Your task to perform on an android device: allow cookies in the chrome app Image 0: 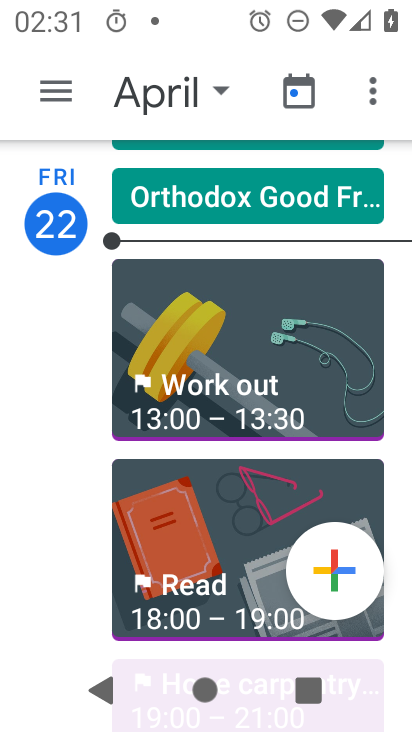
Step 0: press home button
Your task to perform on an android device: allow cookies in the chrome app Image 1: 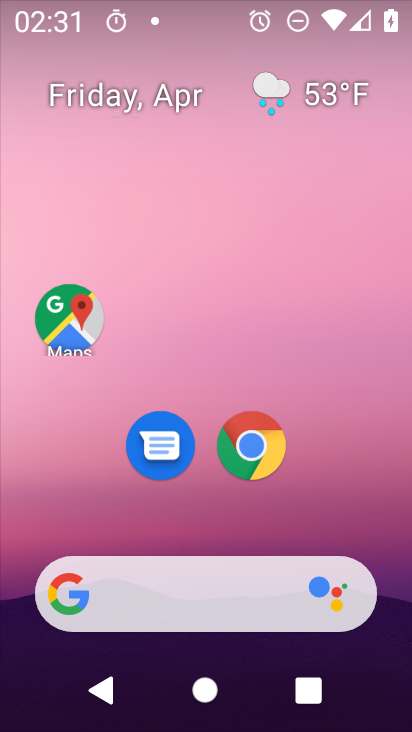
Step 1: drag from (355, 462) to (333, 115)
Your task to perform on an android device: allow cookies in the chrome app Image 2: 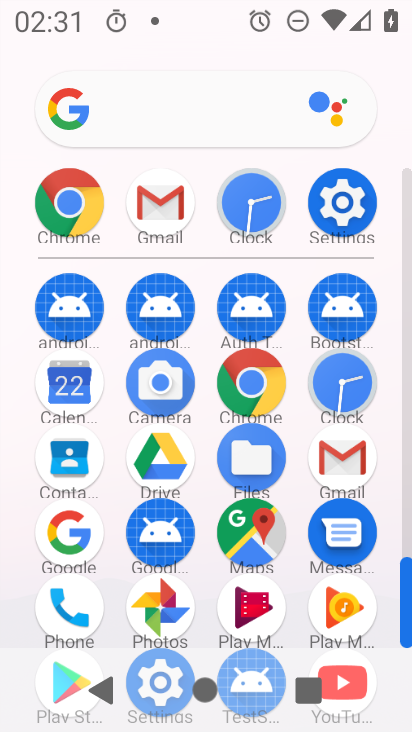
Step 2: click (254, 392)
Your task to perform on an android device: allow cookies in the chrome app Image 3: 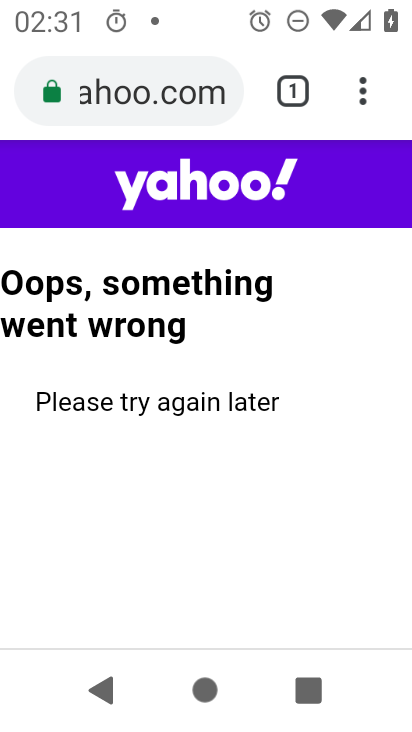
Step 3: click (365, 87)
Your task to perform on an android device: allow cookies in the chrome app Image 4: 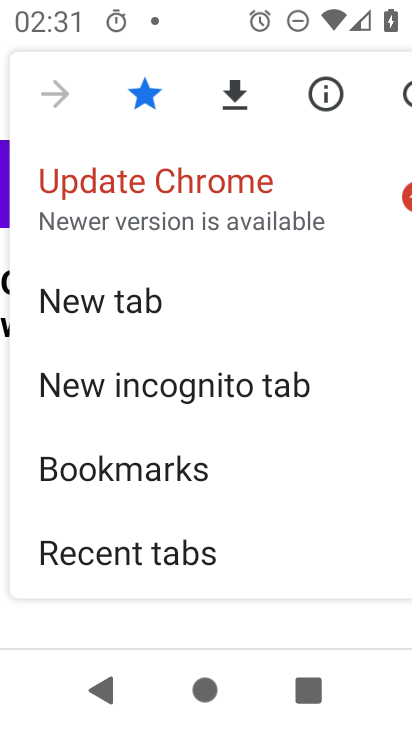
Step 4: drag from (328, 511) to (342, 336)
Your task to perform on an android device: allow cookies in the chrome app Image 5: 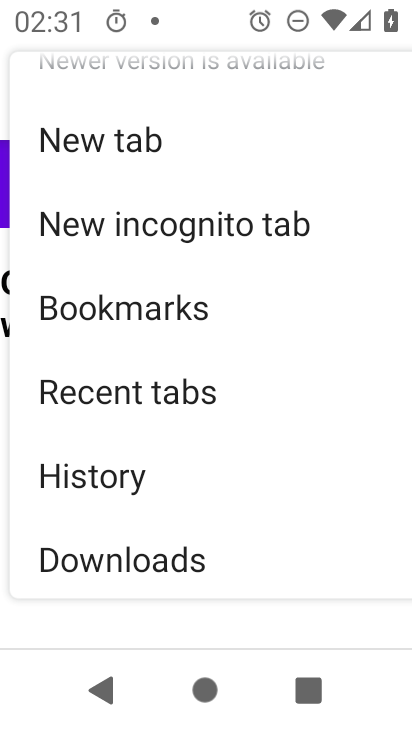
Step 5: drag from (334, 445) to (322, 233)
Your task to perform on an android device: allow cookies in the chrome app Image 6: 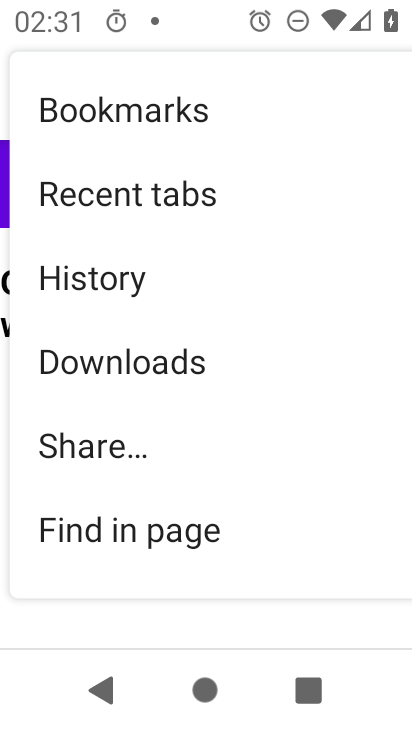
Step 6: drag from (308, 506) to (314, 248)
Your task to perform on an android device: allow cookies in the chrome app Image 7: 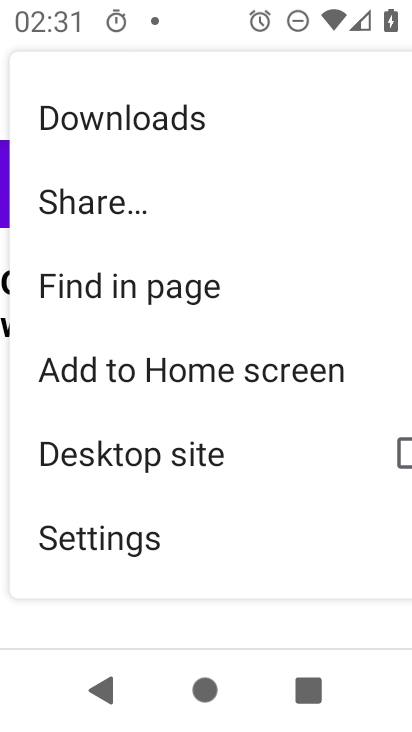
Step 7: drag from (291, 441) to (298, 258)
Your task to perform on an android device: allow cookies in the chrome app Image 8: 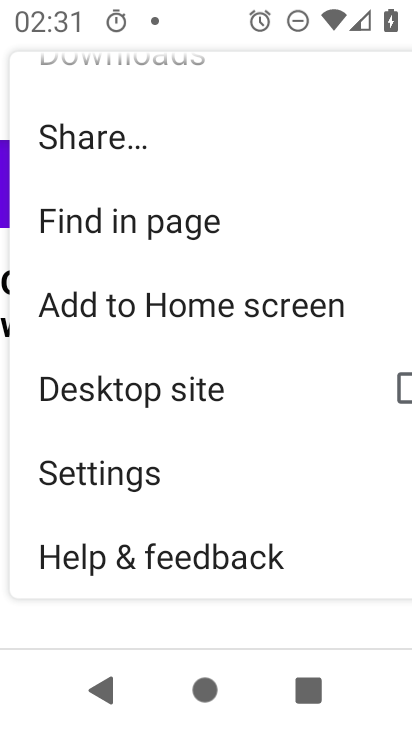
Step 8: click (150, 476)
Your task to perform on an android device: allow cookies in the chrome app Image 9: 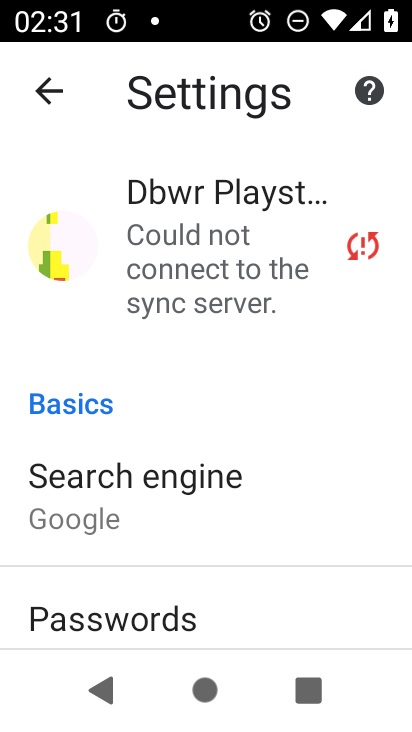
Step 9: drag from (296, 545) to (300, 319)
Your task to perform on an android device: allow cookies in the chrome app Image 10: 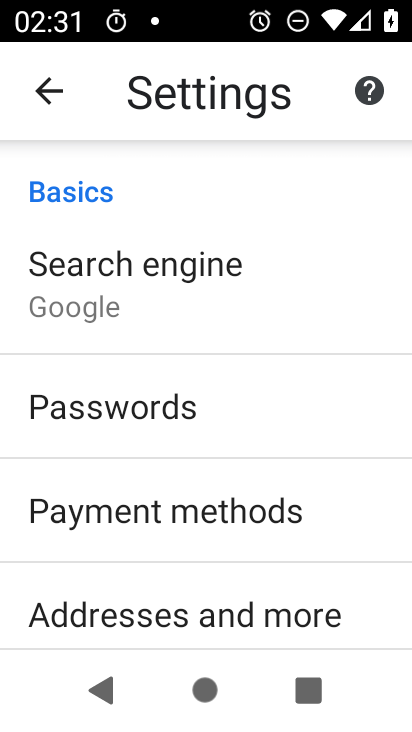
Step 10: drag from (324, 535) to (326, 342)
Your task to perform on an android device: allow cookies in the chrome app Image 11: 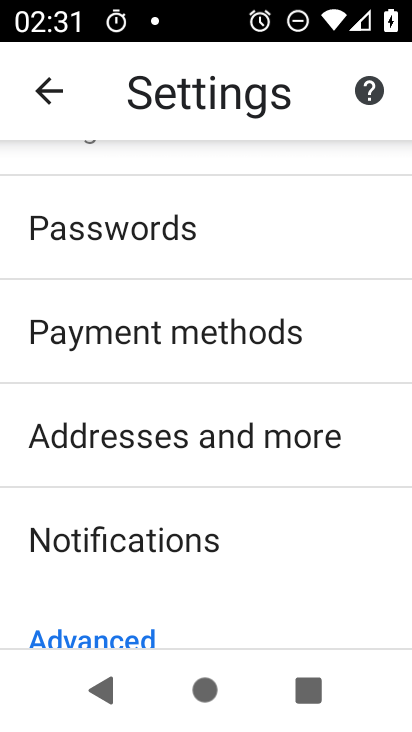
Step 11: drag from (326, 572) to (348, 374)
Your task to perform on an android device: allow cookies in the chrome app Image 12: 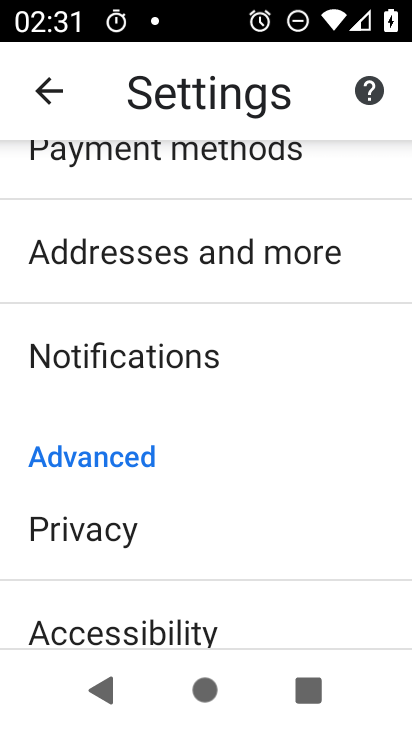
Step 12: drag from (333, 540) to (335, 339)
Your task to perform on an android device: allow cookies in the chrome app Image 13: 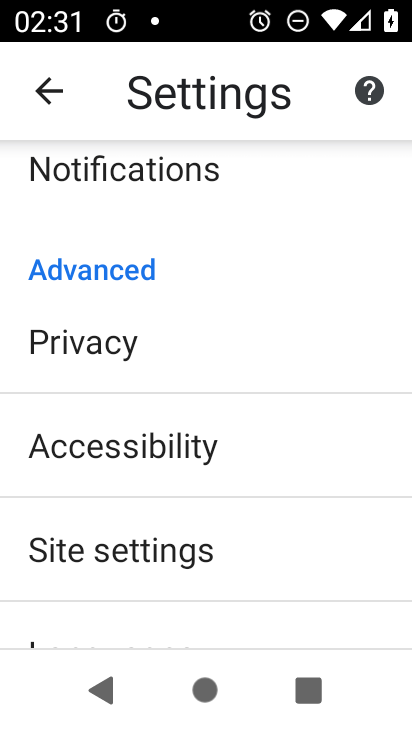
Step 13: click (291, 544)
Your task to perform on an android device: allow cookies in the chrome app Image 14: 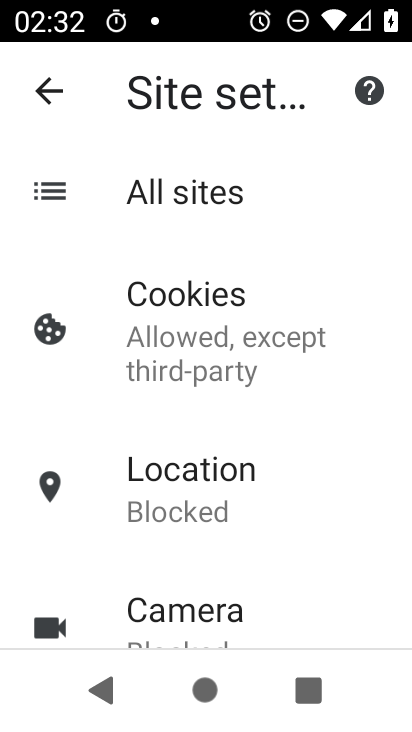
Step 14: click (261, 344)
Your task to perform on an android device: allow cookies in the chrome app Image 15: 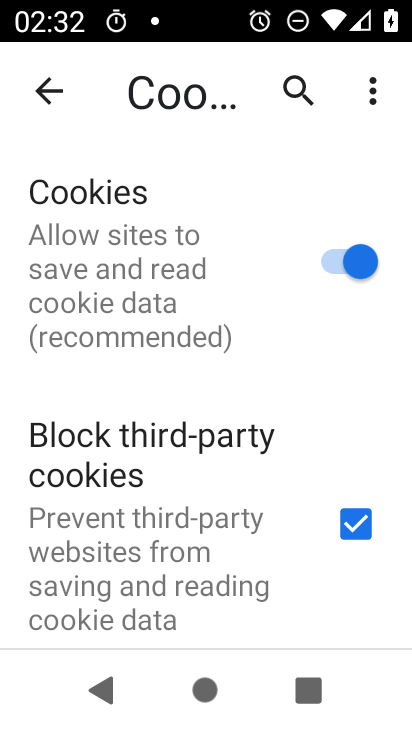
Step 15: task complete